Your task to perform on an android device: Play the last video I watched on Youtube Image 0: 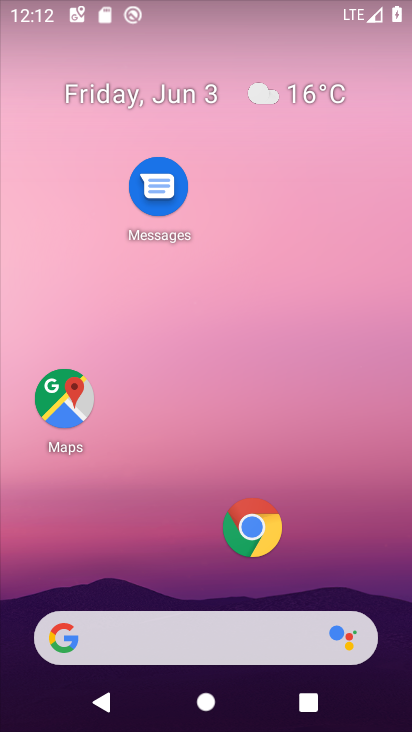
Step 0: press home button
Your task to perform on an android device: Play the last video I watched on Youtube Image 1: 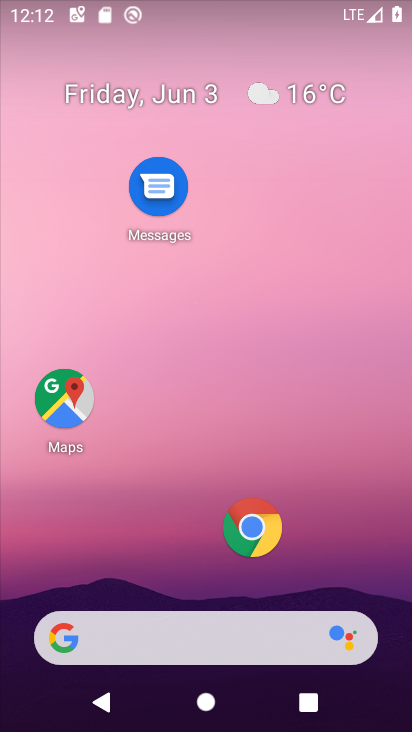
Step 1: drag from (195, 584) to (223, 9)
Your task to perform on an android device: Play the last video I watched on Youtube Image 2: 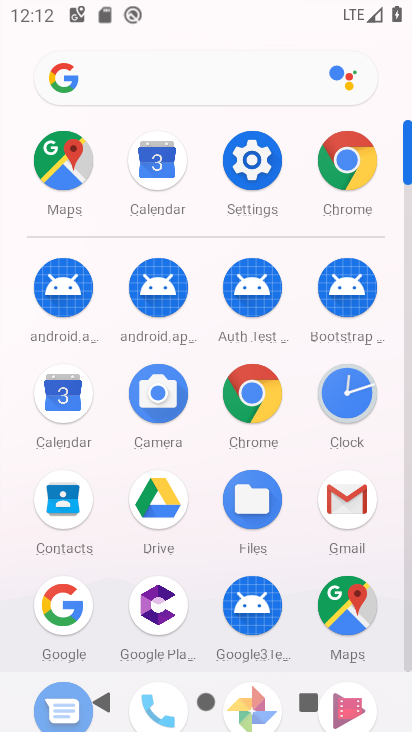
Step 2: drag from (204, 560) to (214, 116)
Your task to perform on an android device: Play the last video I watched on Youtube Image 3: 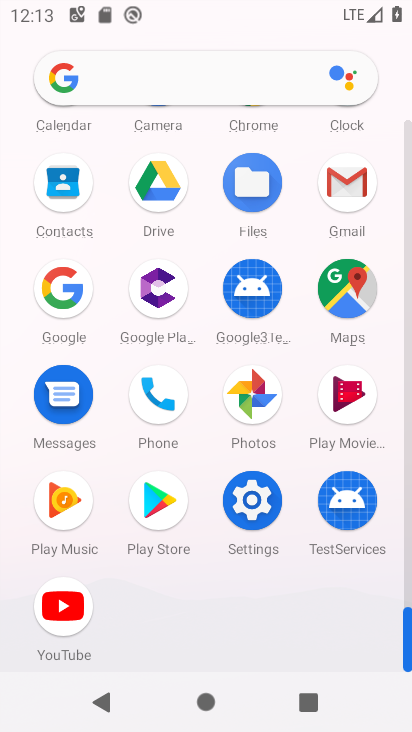
Step 3: click (59, 597)
Your task to perform on an android device: Play the last video I watched on Youtube Image 4: 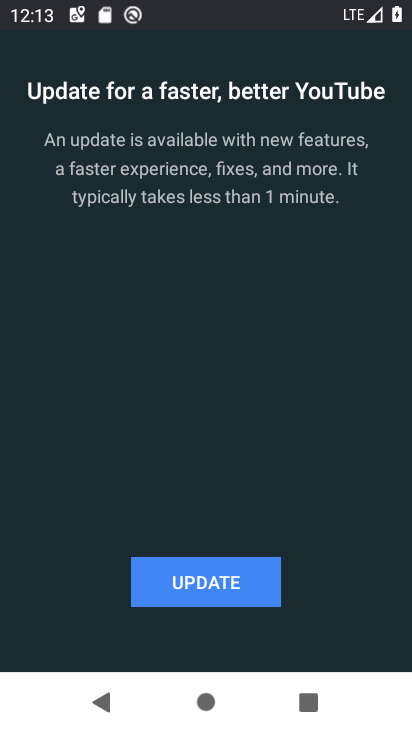
Step 4: click (212, 577)
Your task to perform on an android device: Play the last video I watched on Youtube Image 5: 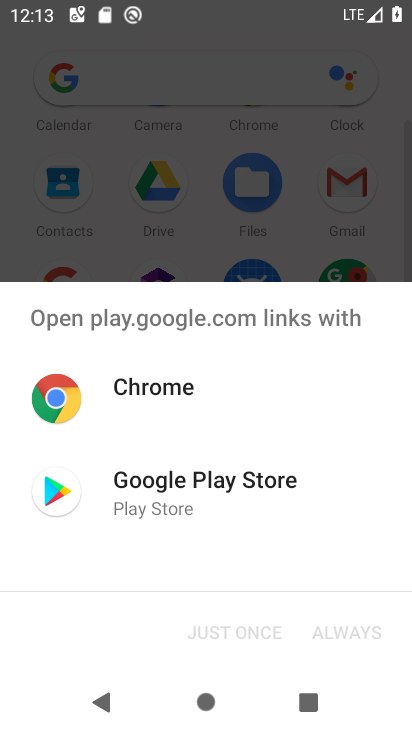
Step 5: click (107, 489)
Your task to perform on an android device: Play the last video I watched on Youtube Image 6: 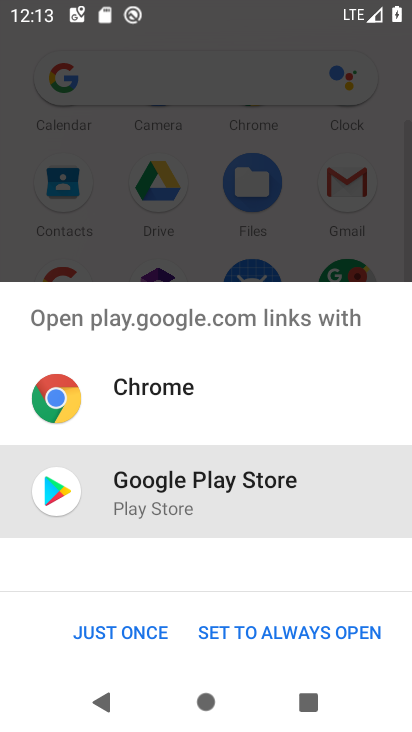
Step 6: click (113, 625)
Your task to perform on an android device: Play the last video I watched on Youtube Image 7: 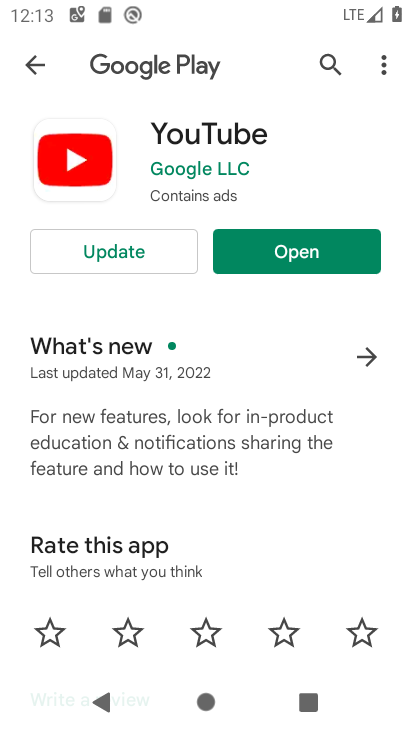
Step 7: click (113, 255)
Your task to perform on an android device: Play the last video I watched on Youtube Image 8: 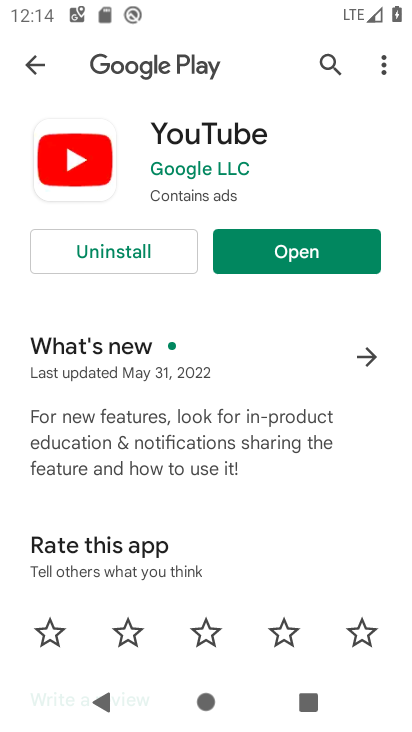
Step 8: click (271, 258)
Your task to perform on an android device: Play the last video I watched on Youtube Image 9: 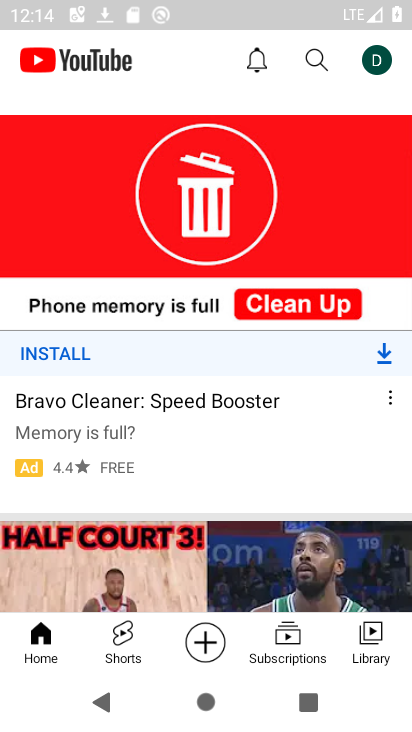
Step 9: click (373, 628)
Your task to perform on an android device: Play the last video I watched on Youtube Image 10: 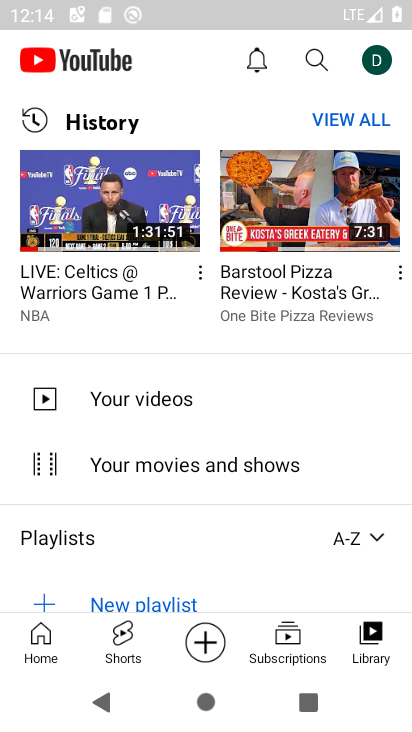
Step 10: click (115, 224)
Your task to perform on an android device: Play the last video I watched on Youtube Image 11: 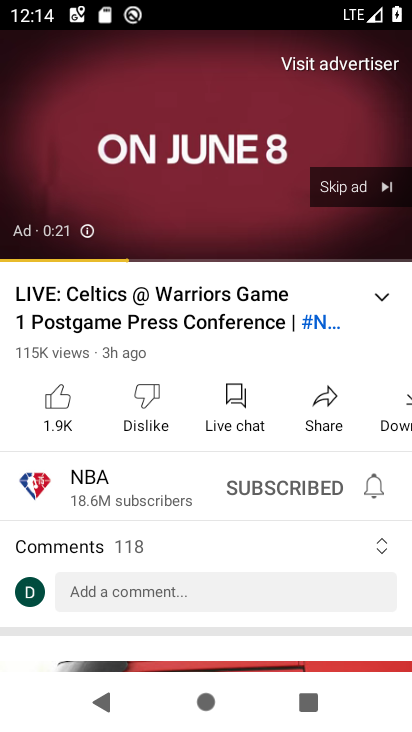
Step 11: click (365, 189)
Your task to perform on an android device: Play the last video I watched on Youtube Image 12: 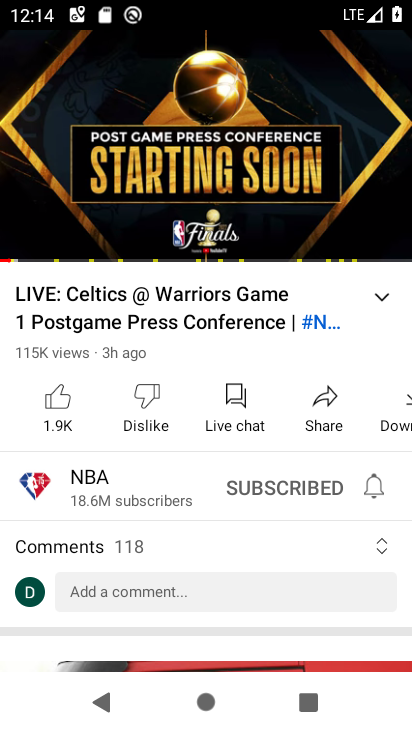
Step 12: click (308, 125)
Your task to perform on an android device: Play the last video I watched on Youtube Image 13: 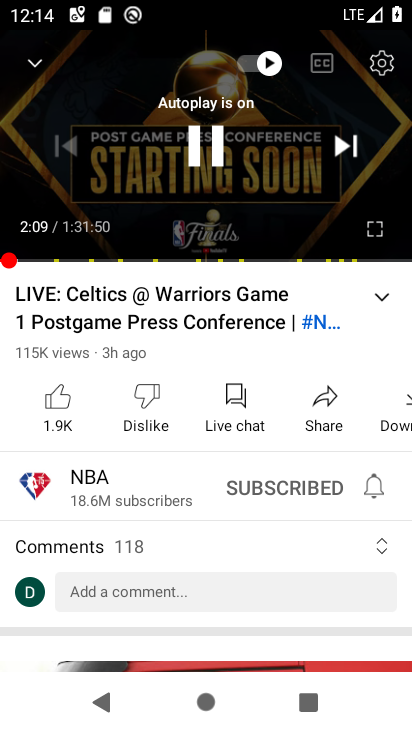
Step 13: task complete